Your task to perform on an android device: Clear the shopping cart on costco. Search for "razer blackwidow" on costco, select the first entry, add it to the cart, then select checkout. Image 0: 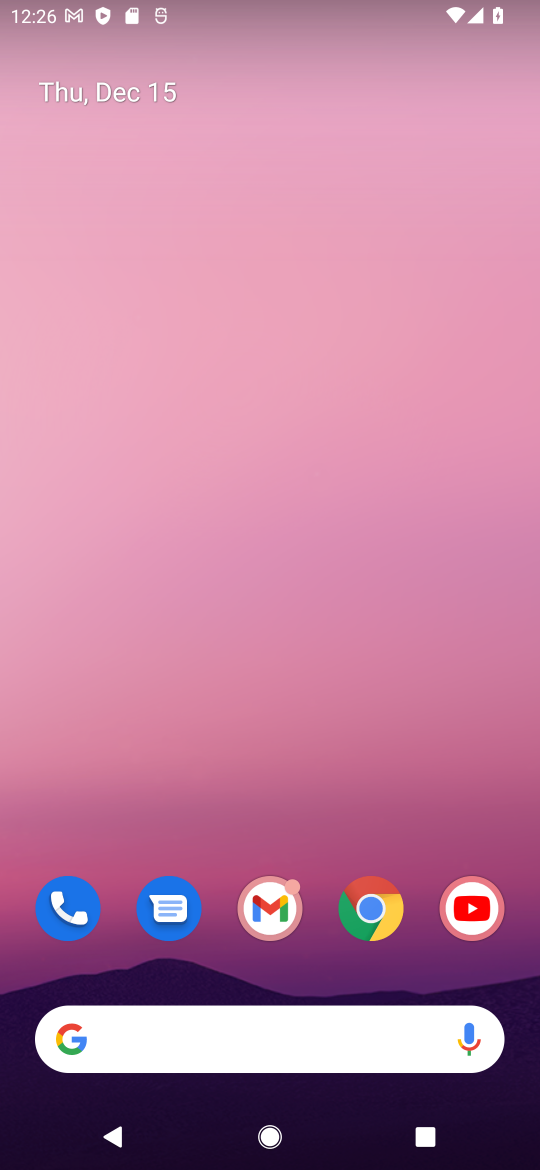
Step 0: click (371, 918)
Your task to perform on an android device: Clear the shopping cart on costco. Search for "razer blackwidow" on costco, select the first entry, add it to the cart, then select checkout. Image 1: 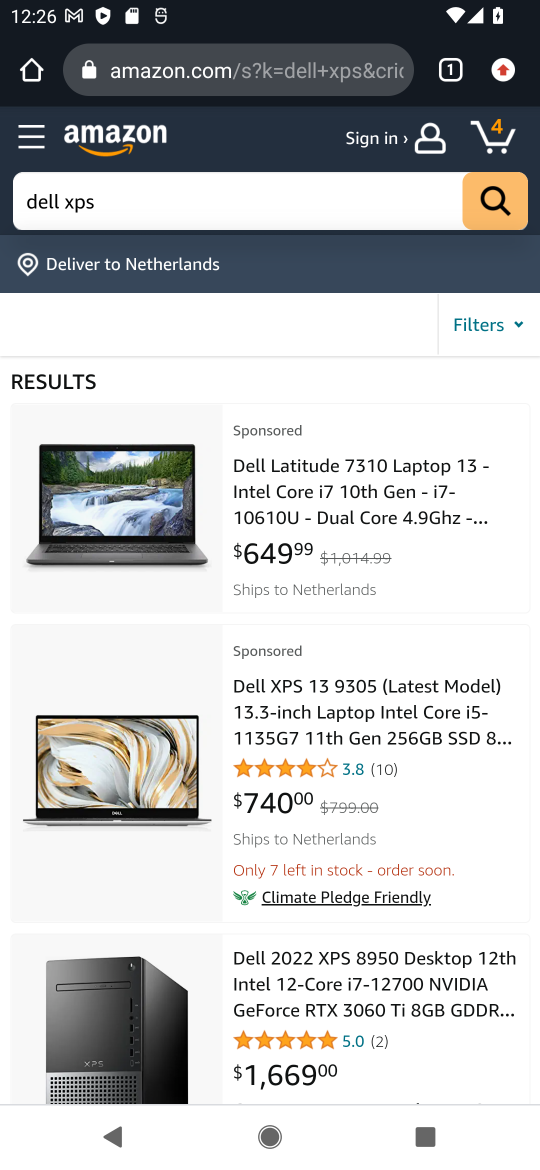
Step 1: click (217, 75)
Your task to perform on an android device: Clear the shopping cart on costco. Search for "razer blackwidow" on costco, select the first entry, add it to the cart, then select checkout. Image 2: 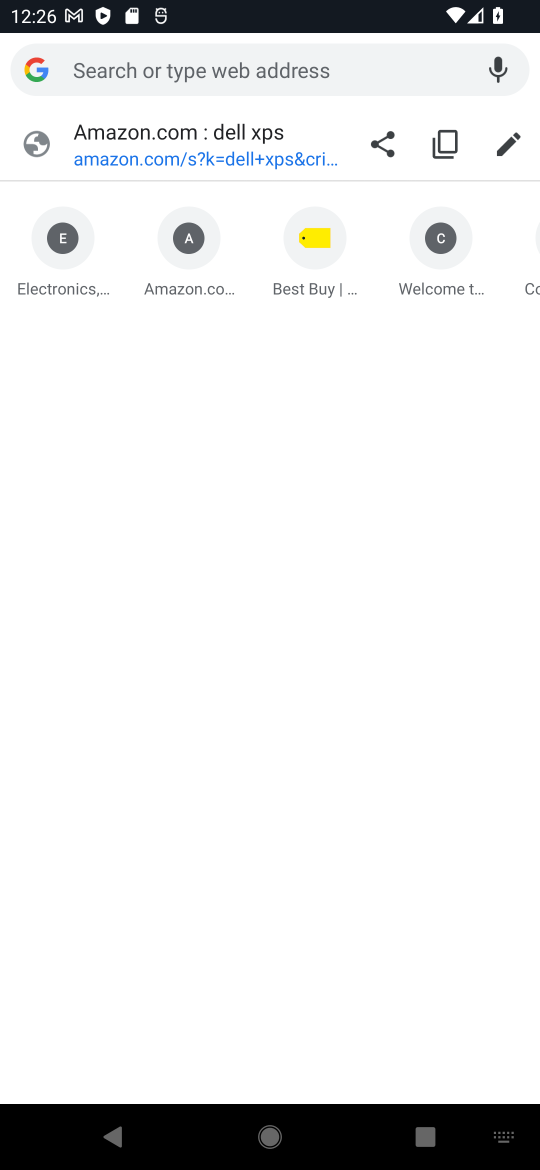
Step 2: type "costco.com"
Your task to perform on an android device: Clear the shopping cart on costco. Search for "razer blackwidow" on costco, select the first entry, add it to the cart, then select checkout. Image 3: 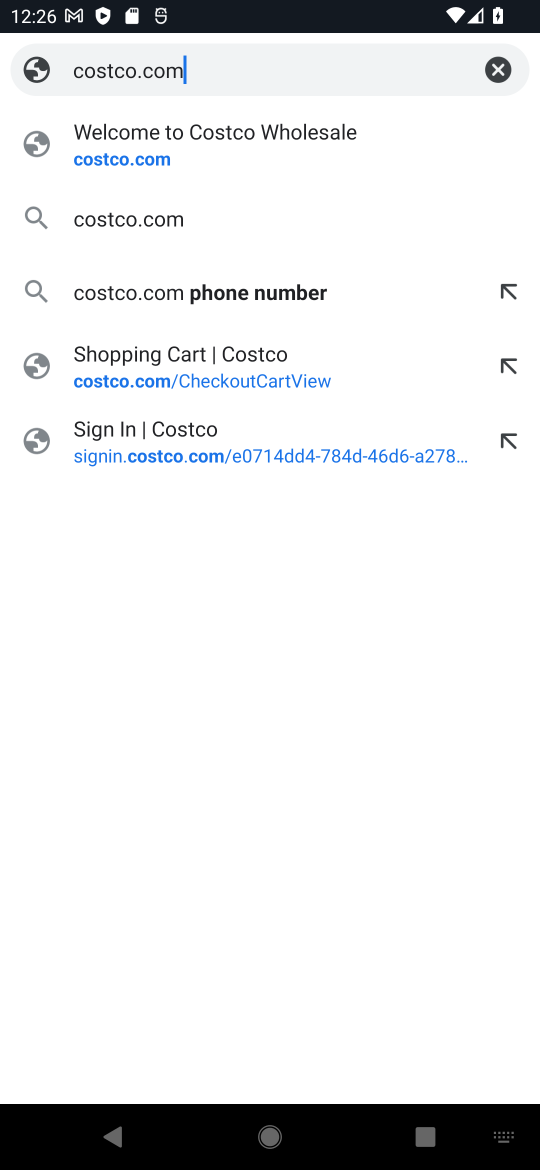
Step 3: click (95, 168)
Your task to perform on an android device: Clear the shopping cart on costco. Search for "razer blackwidow" on costco, select the first entry, add it to the cart, then select checkout. Image 4: 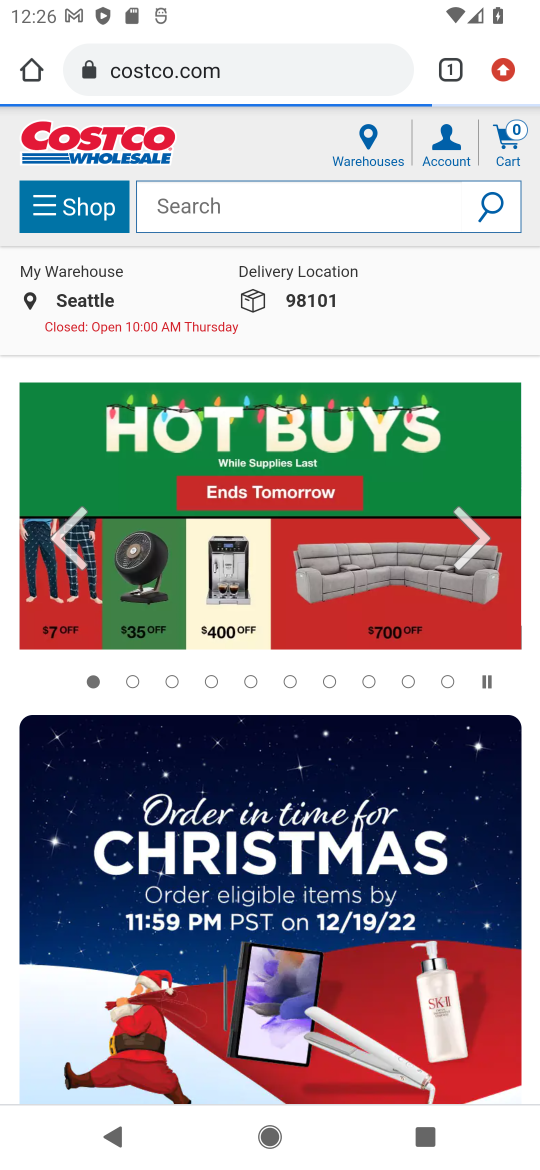
Step 4: click (505, 146)
Your task to perform on an android device: Clear the shopping cart on costco. Search for "razer blackwidow" on costco, select the first entry, add it to the cart, then select checkout. Image 5: 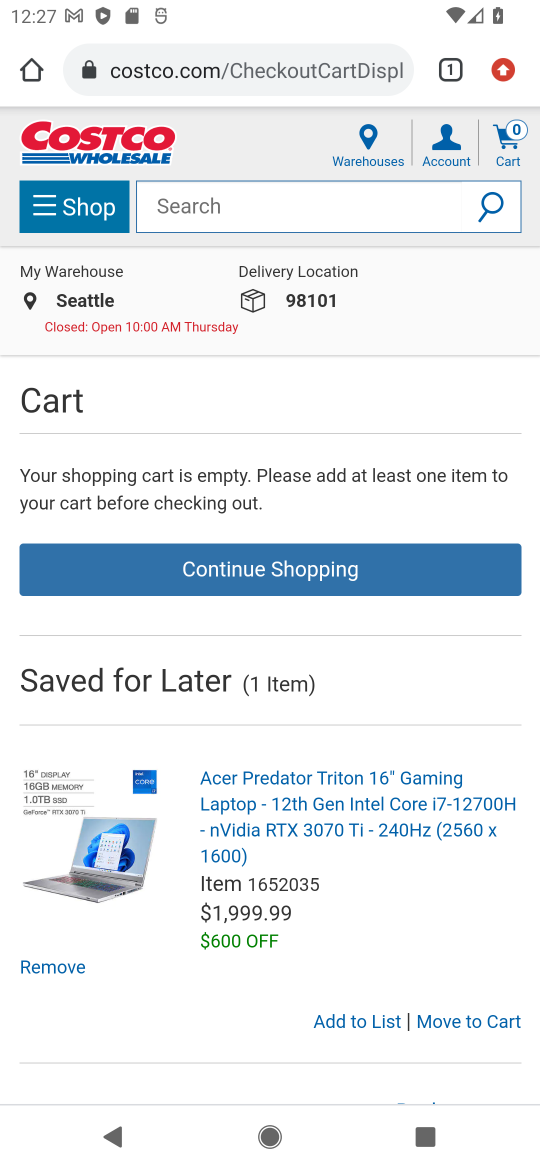
Step 5: click (202, 190)
Your task to perform on an android device: Clear the shopping cart on costco. Search for "razer blackwidow" on costco, select the first entry, add it to the cart, then select checkout. Image 6: 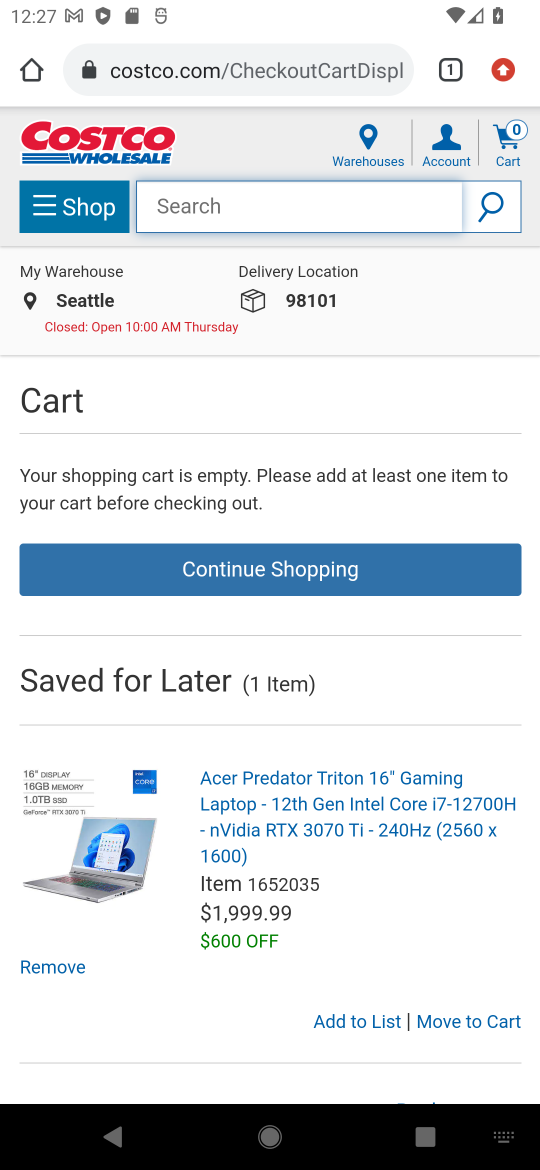
Step 6: type "razer blackwidow"
Your task to perform on an android device: Clear the shopping cart on costco. Search for "razer blackwidow" on costco, select the first entry, add it to the cart, then select checkout. Image 7: 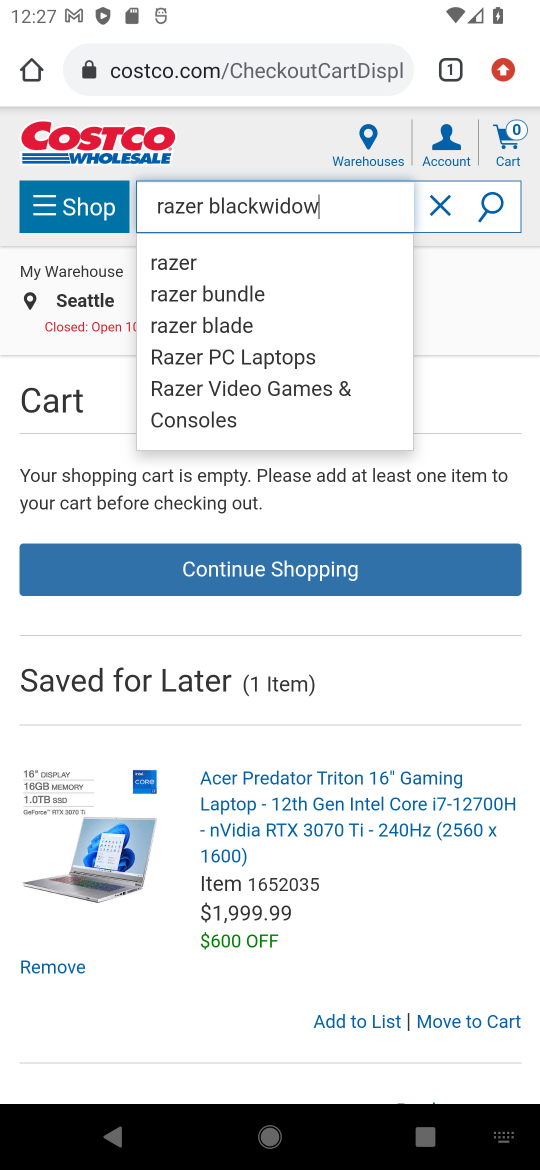
Step 7: click (495, 209)
Your task to perform on an android device: Clear the shopping cart on costco. Search for "razer blackwidow" on costco, select the first entry, add it to the cart, then select checkout. Image 8: 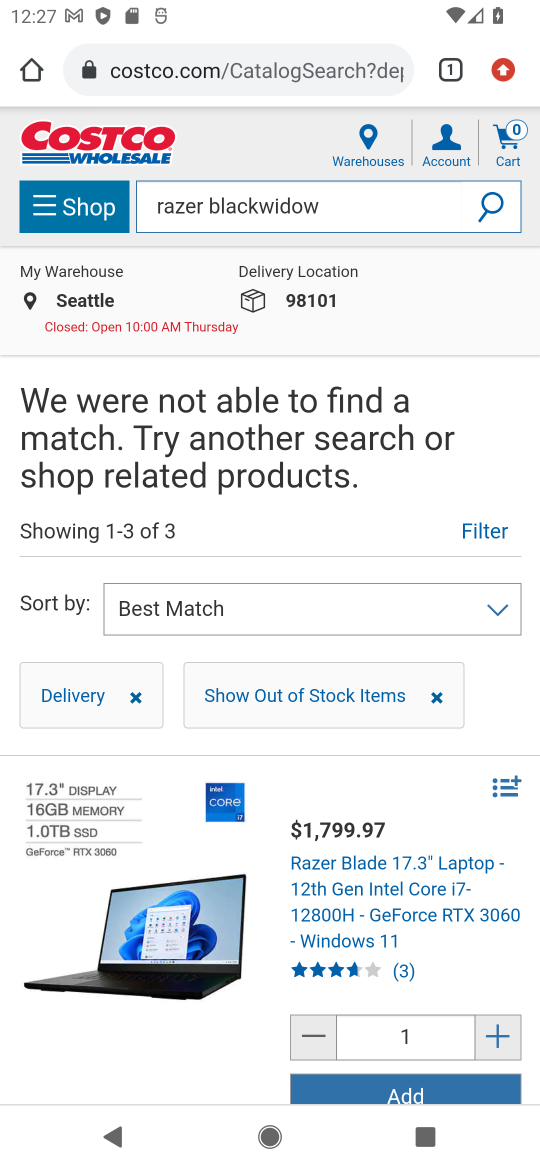
Step 8: task complete